Your task to perform on an android device: turn smart compose on in the gmail app Image 0: 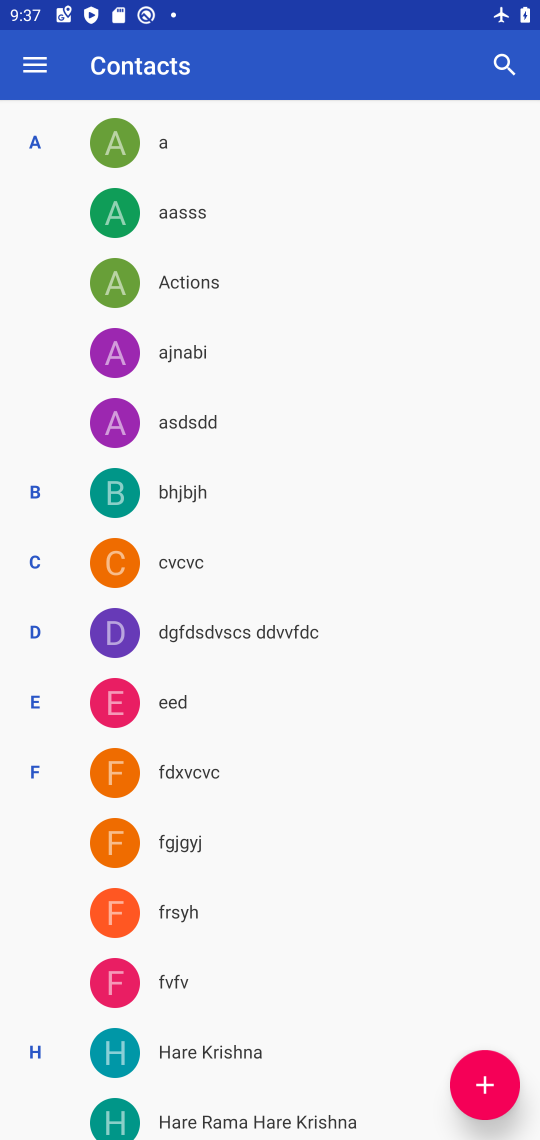
Step 0: press home button
Your task to perform on an android device: turn smart compose on in the gmail app Image 1: 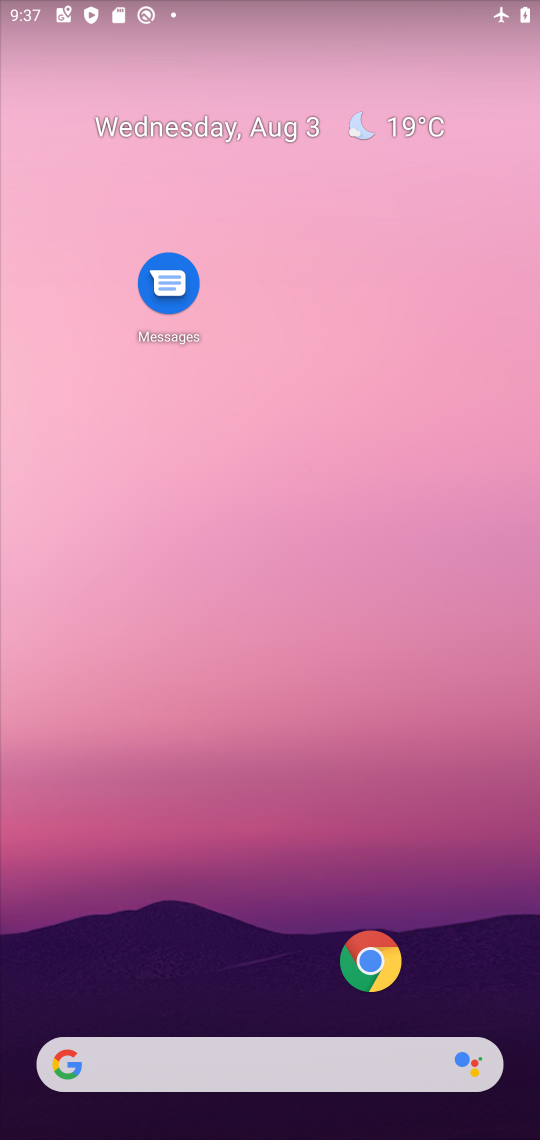
Step 1: drag from (291, 1087) to (205, 177)
Your task to perform on an android device: turn smart compose on in the gmail app Image 2: 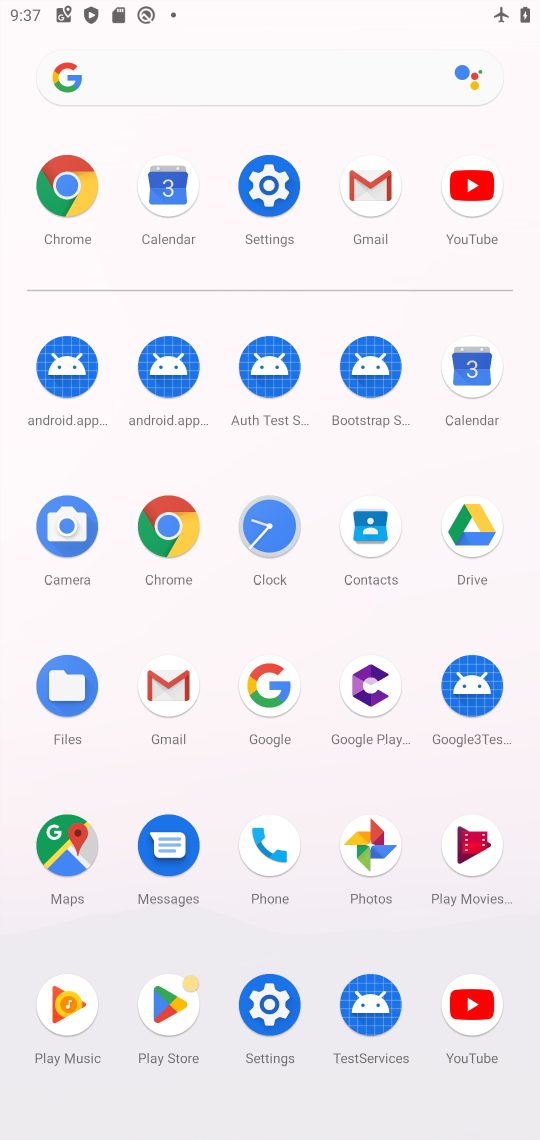
Step 2: click (176, 696)
Your task to perform on an android device: turn smart compose on in the gmail app Image 3: 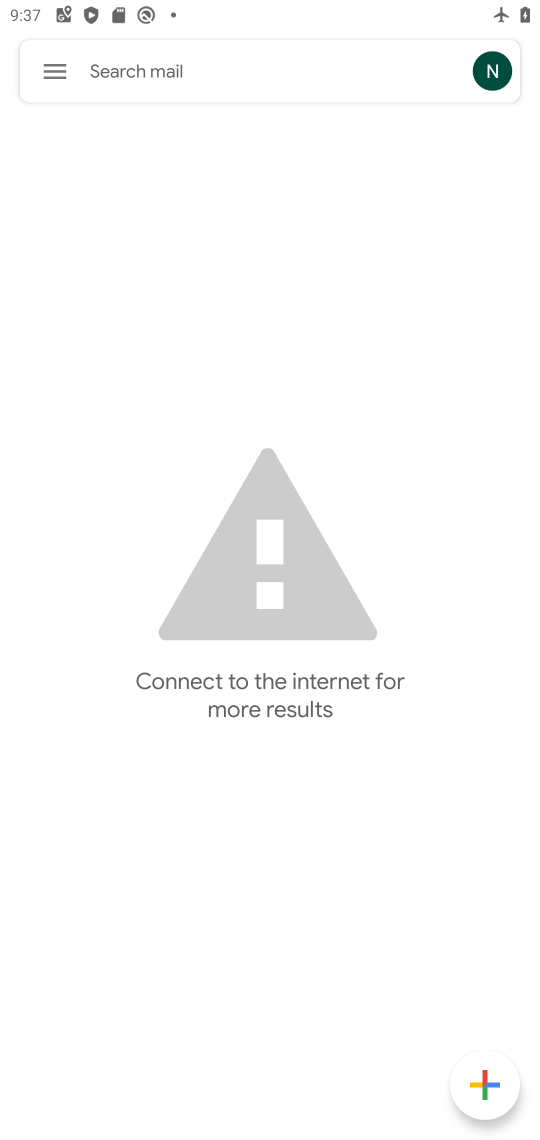
Step 3: click (58, 73)
Your task to perform on an android device: turn smart compose on in the gmail app Image 4: 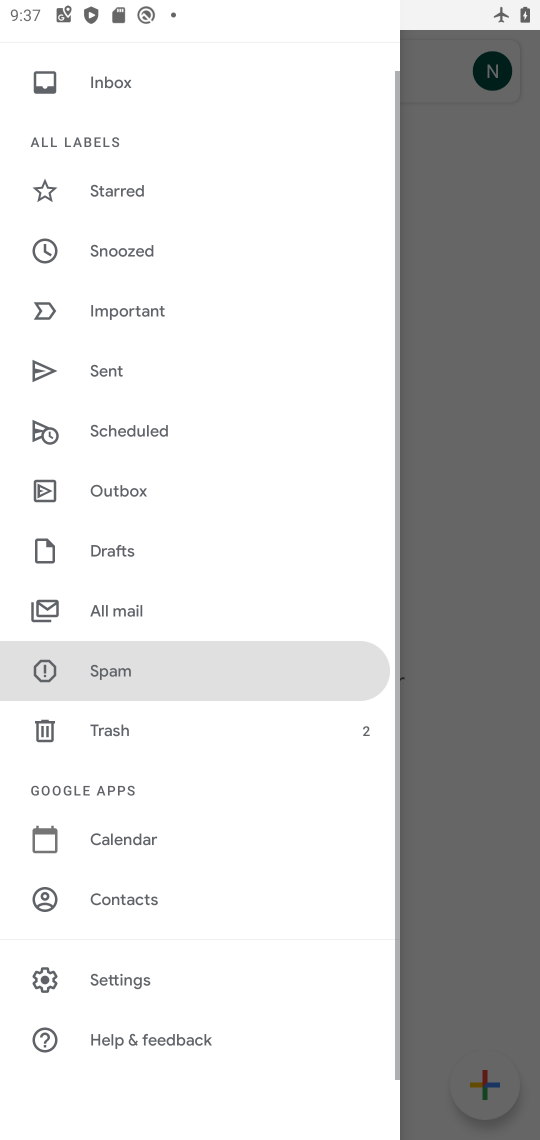
Step 4: click (117, 976)
Your task to perform on an android device: turn smart compose on in the gmail app Image 5: 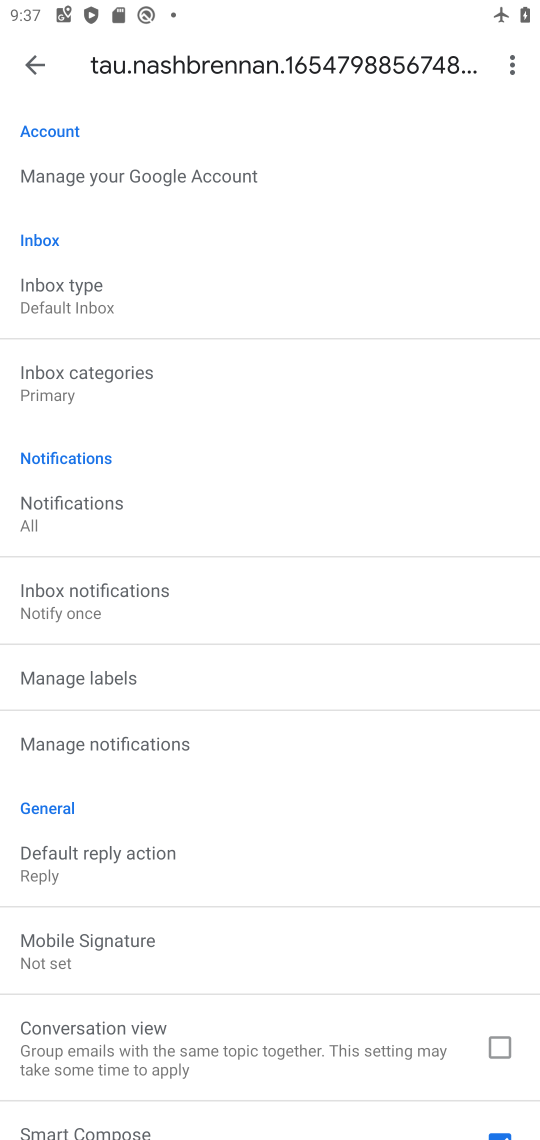
Step 5: task complete